Your task to perform on an android device: make emails show in primary in the gmail app Image 0: 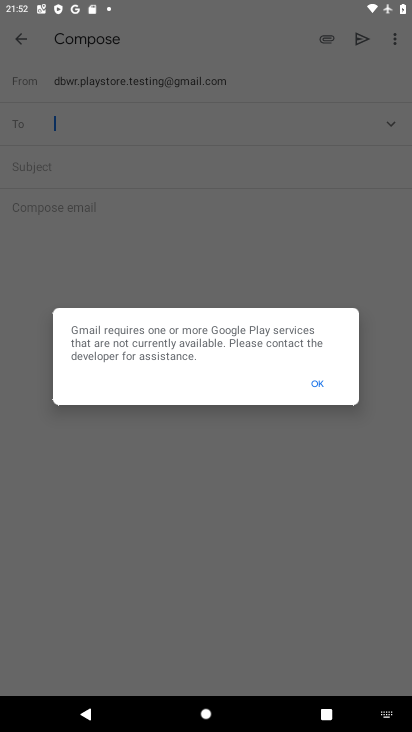
Step 0: task complete